Your task to perform on an android device: What's on my calendar today? Image 0: 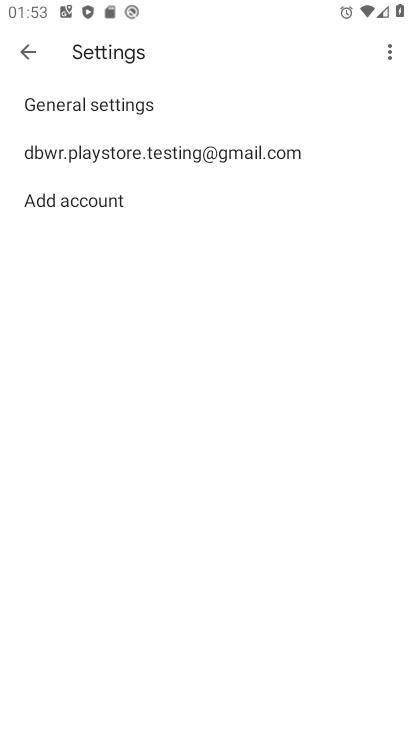
Step 0: press back button
Your task to perform on an android device: What's on my calendar today? Image 1: 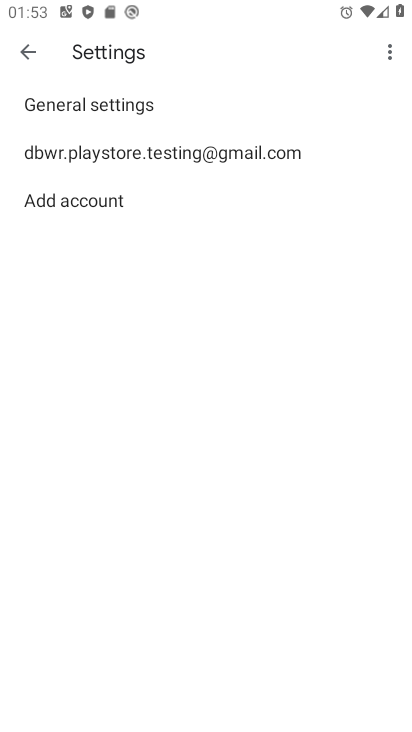
Step 1: press back button
Your task to perform on an android device: What's on my calendar today? Image 2: 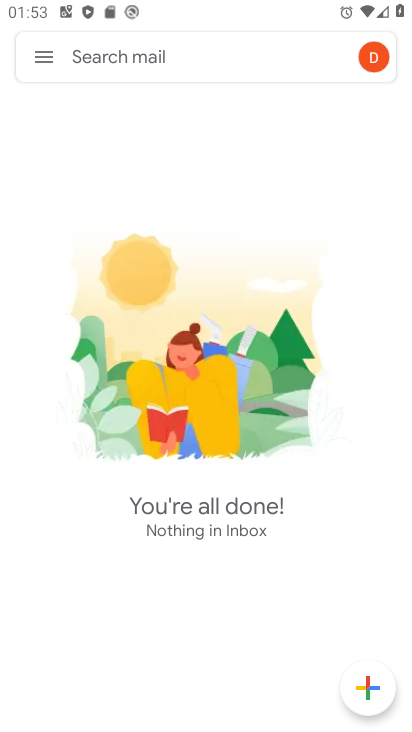
Step 2: press back button
Your task to perform on an android device: What's on my calendar today? Image 3: 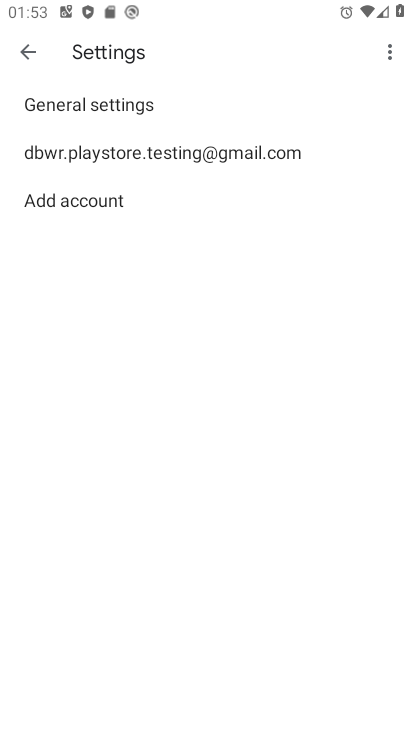
Step 3: press back button
Your task to perform on an android device: What's on my calendar today? Image 4: 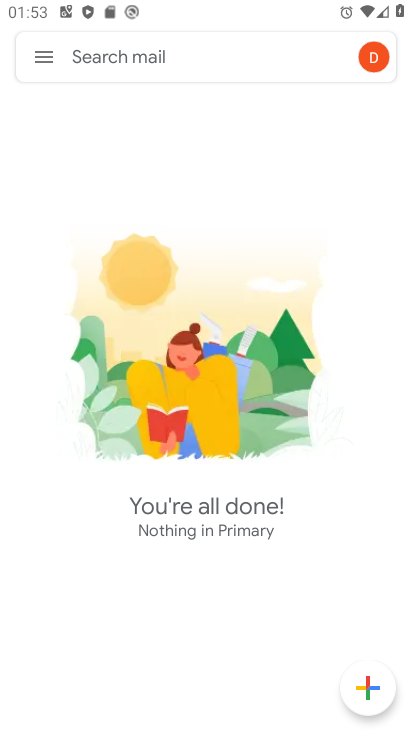
Step 4: press back button
Your task to perform on an android device: What's on my calendar today? Image 5: 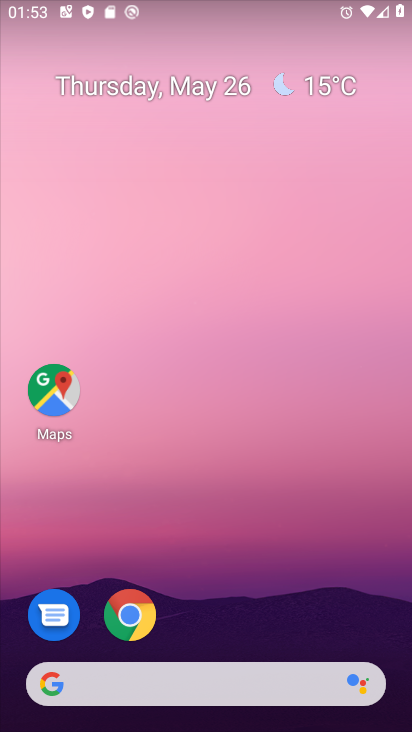
Step 5: drag from (231, 601) to (277, 78)
Your task to perform on an android device: What's on my calendar today? Image 6: 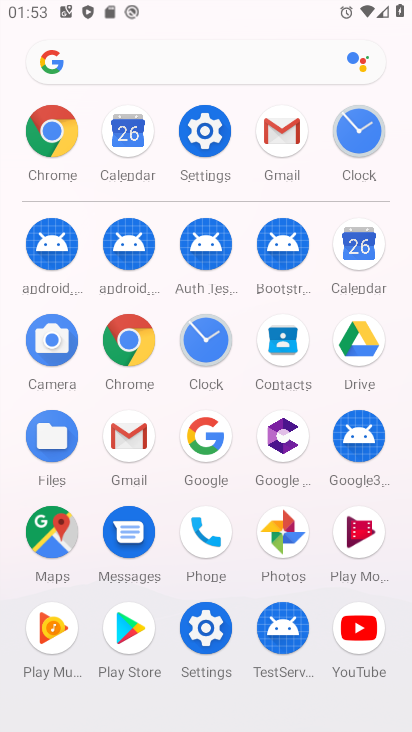
Step 6: click (130, 124)
Your task to perform on an android device: What's on my calendar today? Image 7: 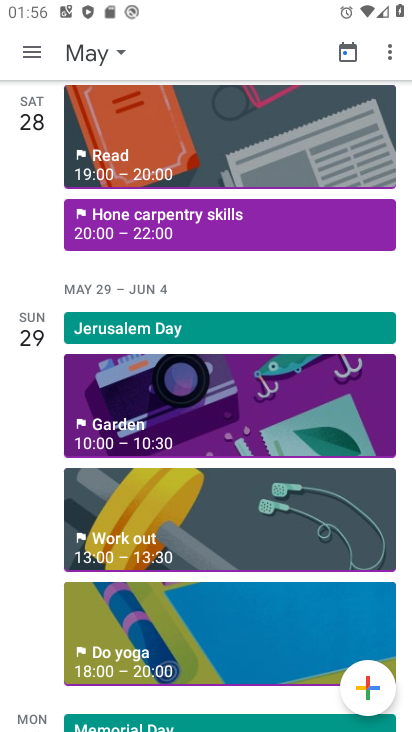
Step 7: task complete